Your task to perform on an android device: add a contact Image 0: 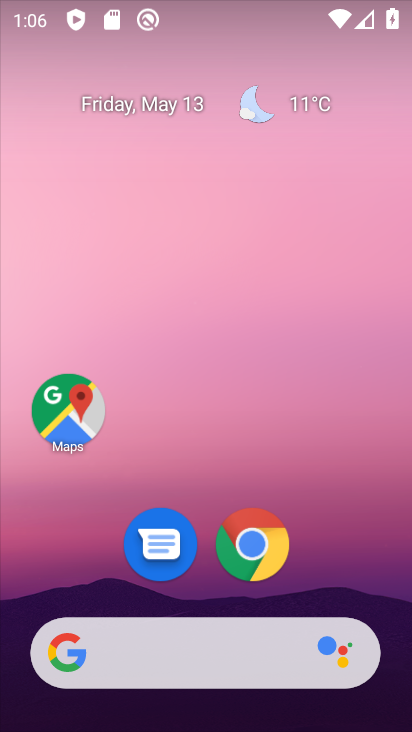
Step 0: drag from (190, 564) to (232, 196)
Your task to perform on an android device: add a contact Image 1: 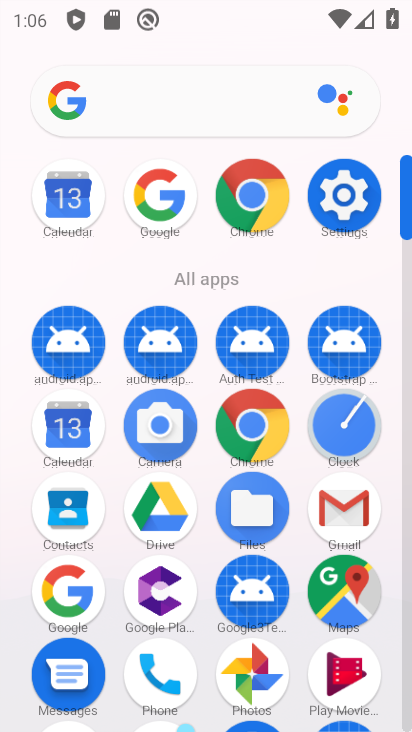
Step 1: click (65, 508)
Your task to perform on an android device: add a contact Image 2: 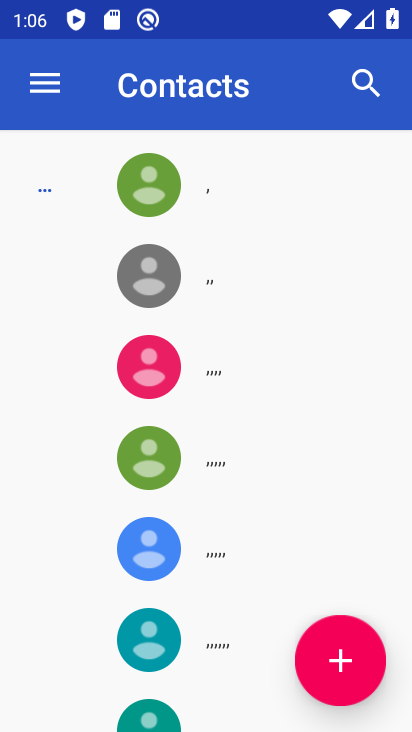
Step 2: click (343, 662)
Your task to perform on an android device: add a contact Image 3: 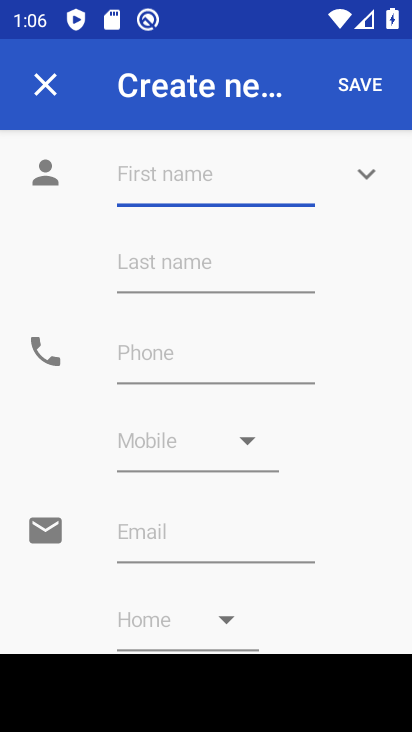
Step 3: type "hbhjn"
Your task to perform on an android device: add a contact Image 4: 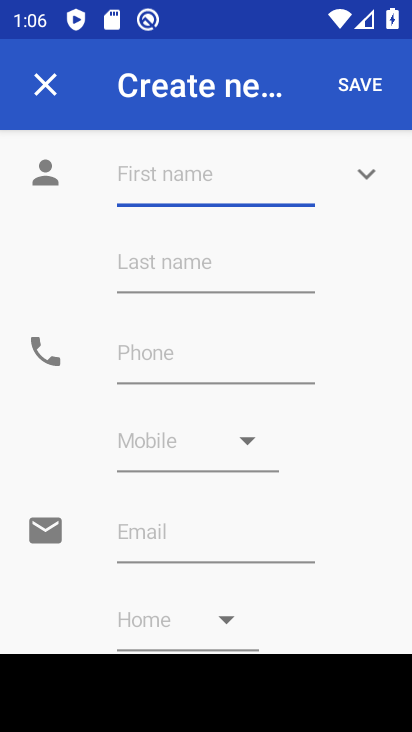
Step 4: click (189, 266)
Your task to perform on an android device: add a contact Image 5: 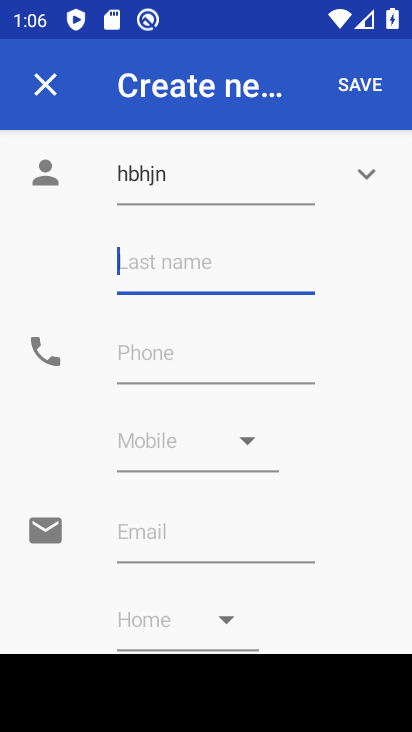
Step 5: type "gvbn"
Your task to perform on an android device: add a contact Image 6: 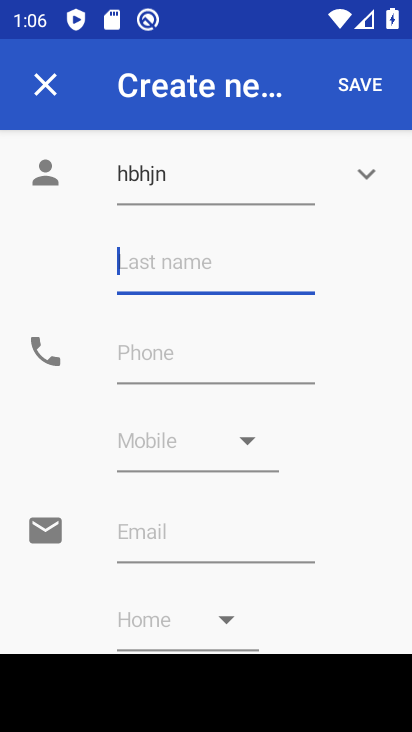
Step 6: click (194, 351)
Your task to perform on an android device: add a contact Image 7: 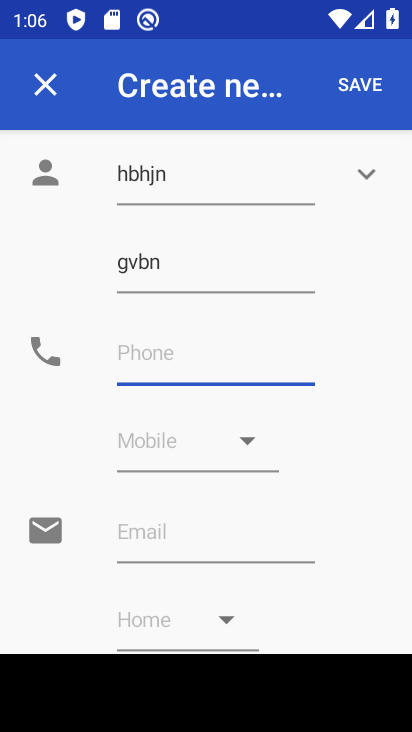
Step 7: type "7877898"
Your task to perform on an android device: add a contact Image 8: 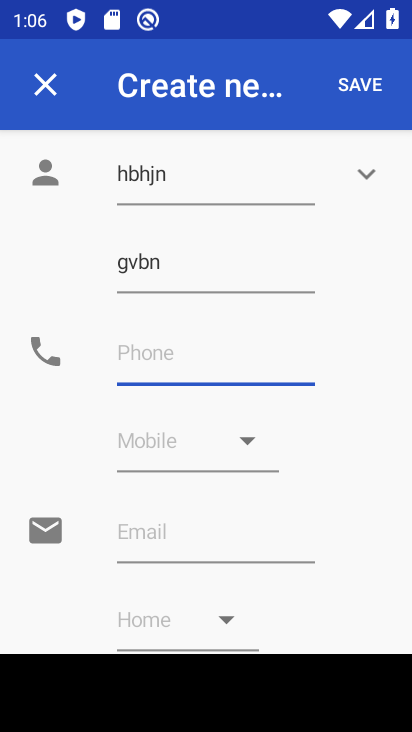
Step 8: click (181, 453)
Your task to perform on an android device: add a contact Image 9: 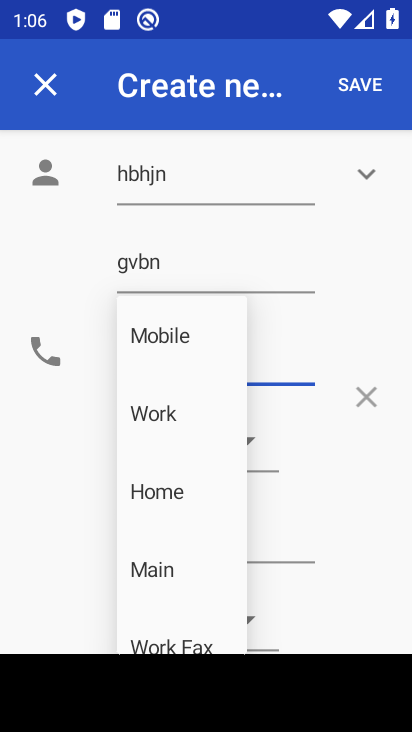
Step 9: click (379, 82)
Your task to perform on an android device: add a contact Image 10: 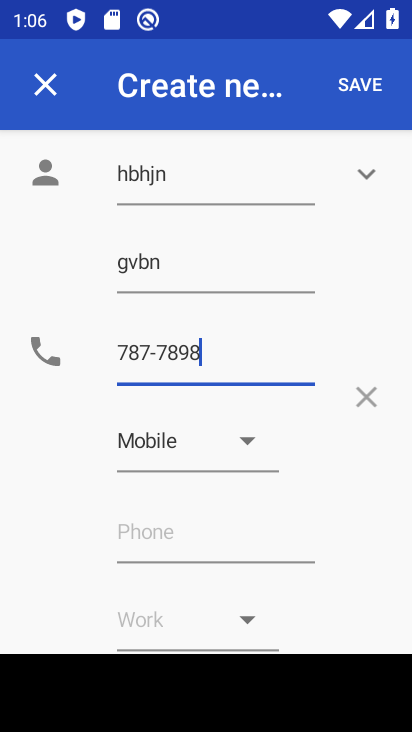
Step 10: click (363, 84)
Your task to perform on an android device: add a contact Image 11: 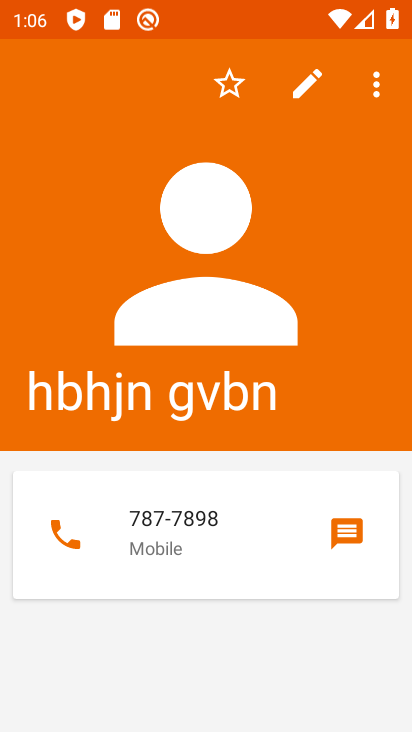
Step 11: task complete